Your task to perform on an android device: Add razer blackwidow to the cart on walmart Image 0: 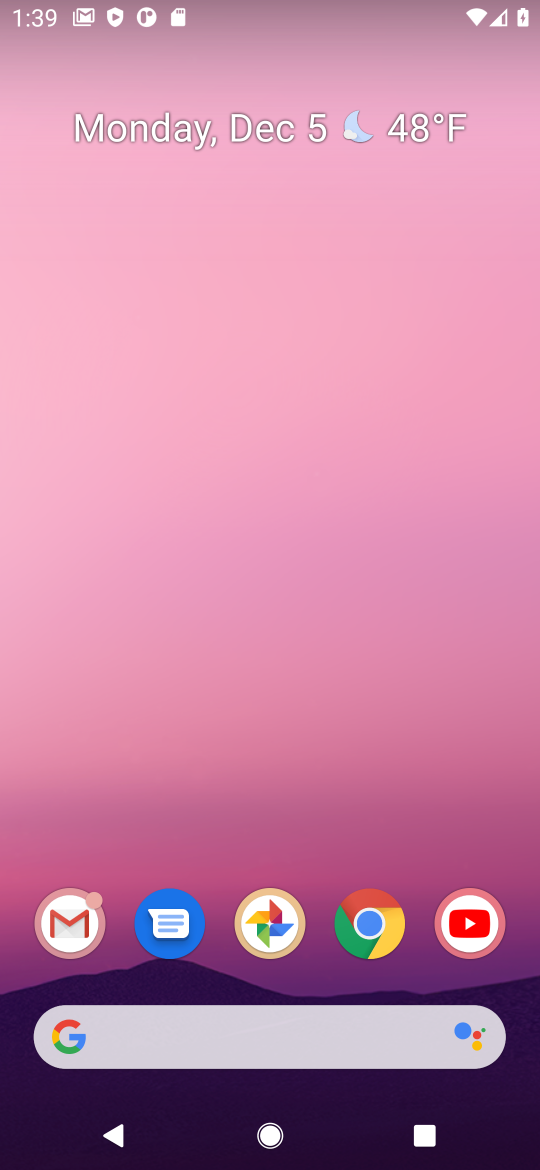
Step 0: click (244, 1019)
Your task to perform on an android device: Add razer blackwidow to the cart on walmart Image 1: 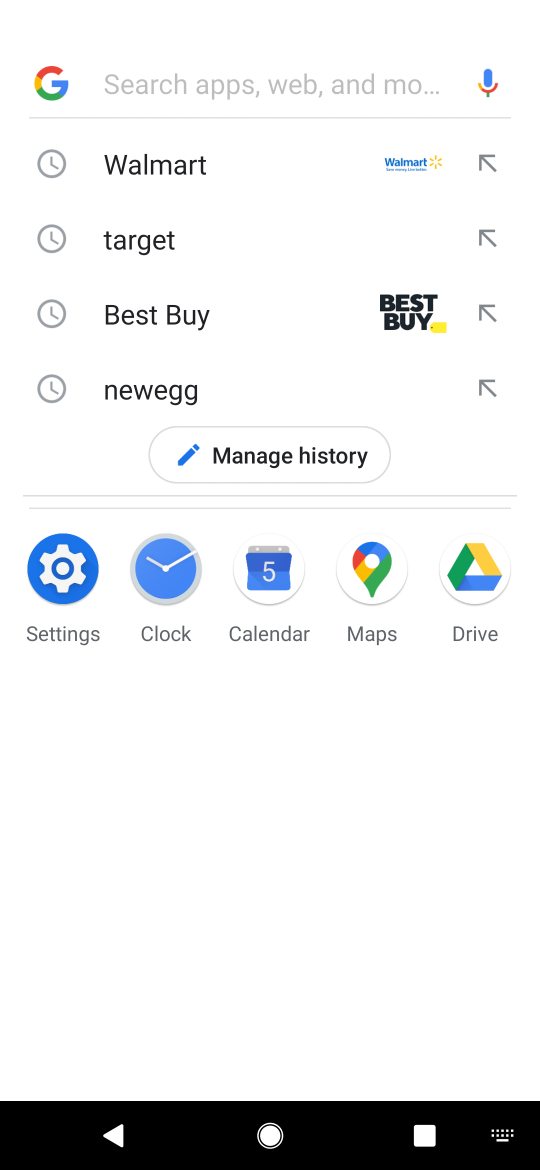
Step 1: type "walmart"
Your task to perform on an android device: Add razer blackwidow to the cart on walmart Image 2: 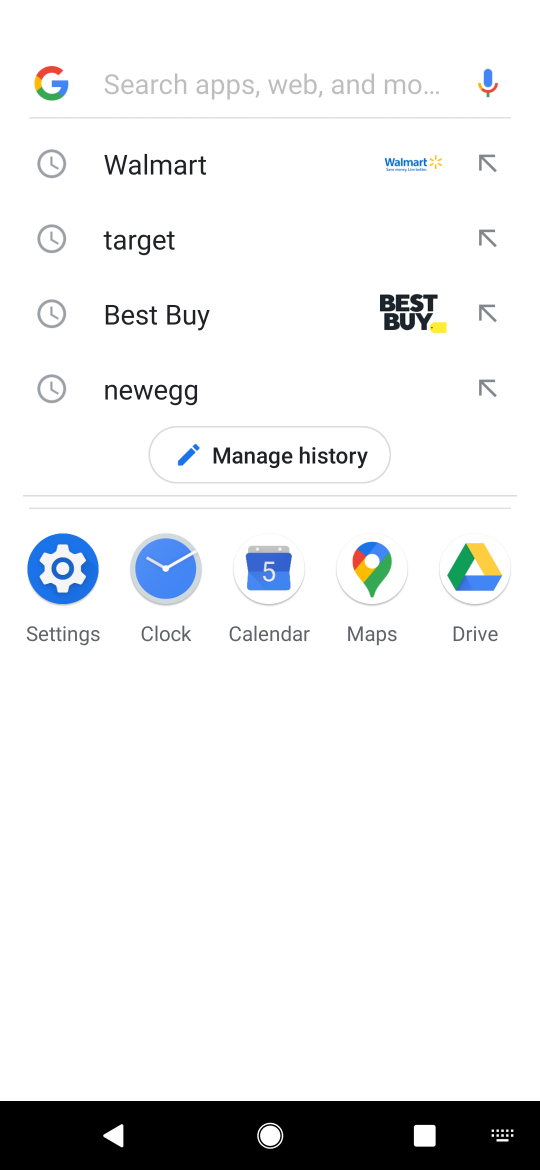
Step 2: click (132, 159)
Your task to perform on an android device: Add razer blackwidow to the cart on walmart Image 3: 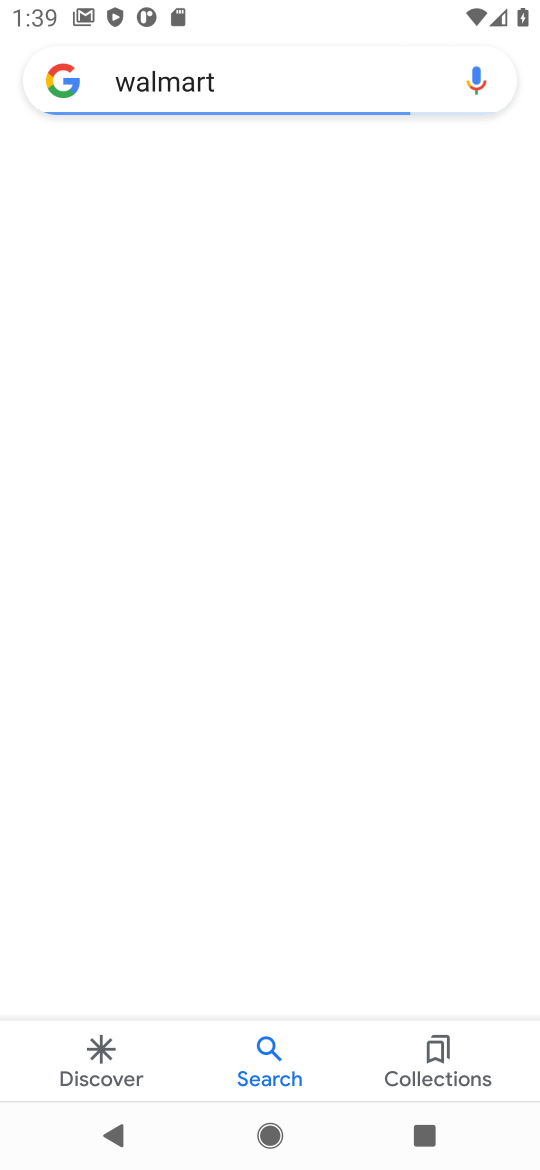
Step 3: task complete